Your task to perform on an android device: turn off data saver in the chrome app Image 0: 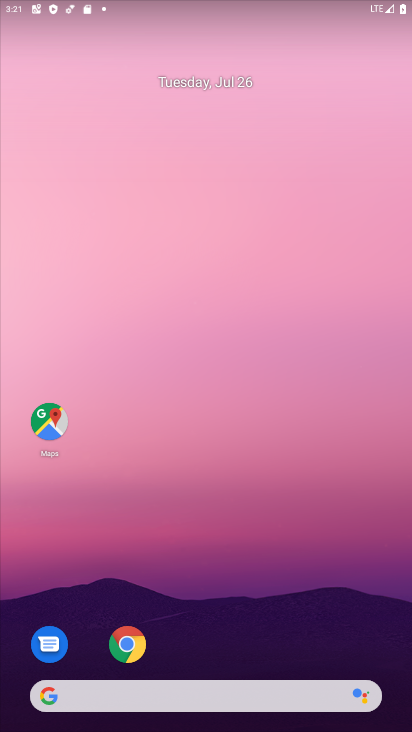
Step 0: click (124, 641)
Your task to perform on an android device: turn off data saver in the chrome app Image 1: 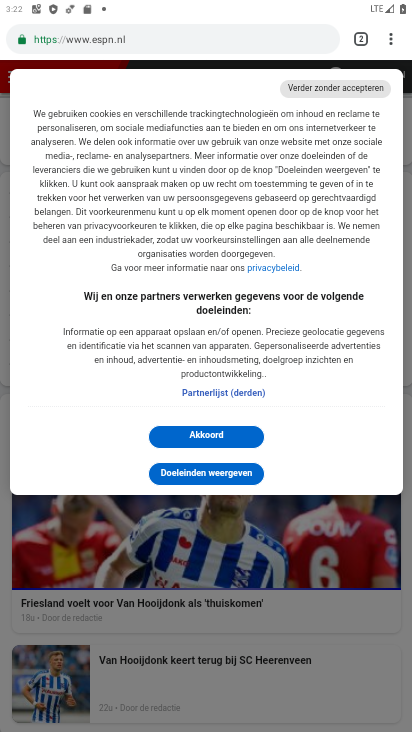
Step 1: click (390, 42)
Your task to perform on an android device: turn off data saver in the chrome app Image 2: 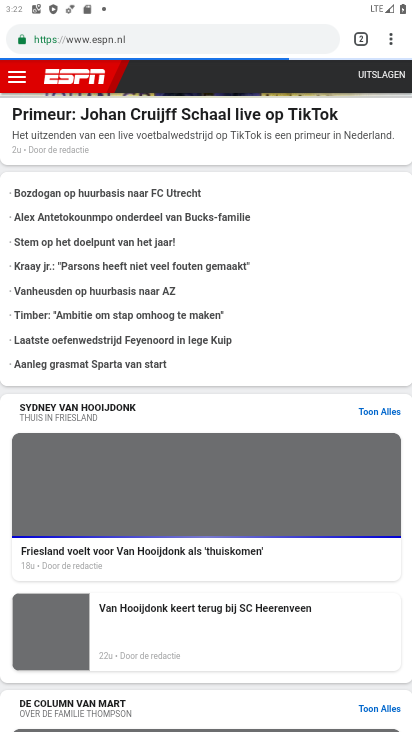
Step 2: click (388, 37)
Your task to perform on an android device: turn off data saver in the chrome app Image 3: 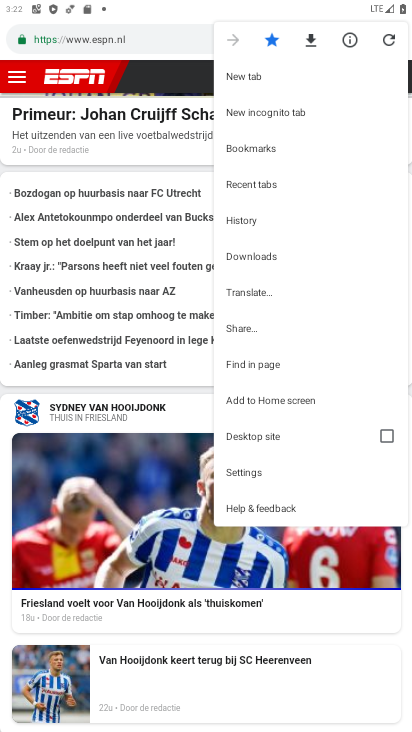
Step 3: click (238, 479)
Your task to perform on an android device: turn off data saver in the chrome app Image 4: 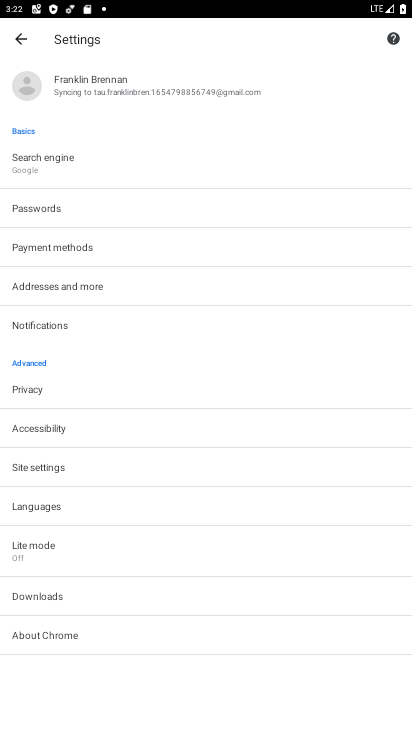
Step 4: click (41, 542)
Your task to perform on an android device: turn off data saver in the chrome app Image 5: 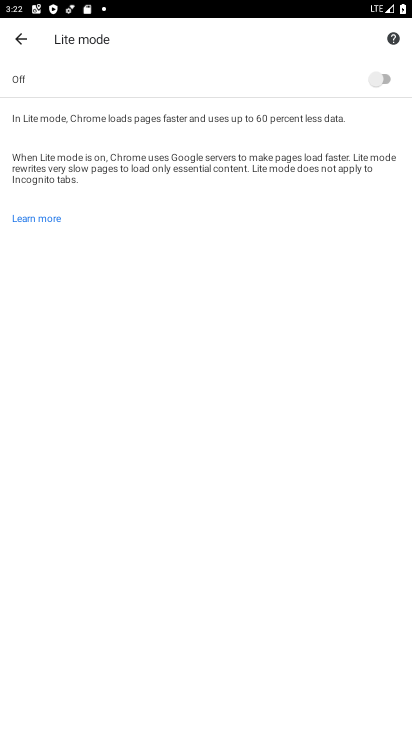
Step 5: task complete